Your task to perform on an android device: set the stopwatch Image 0: 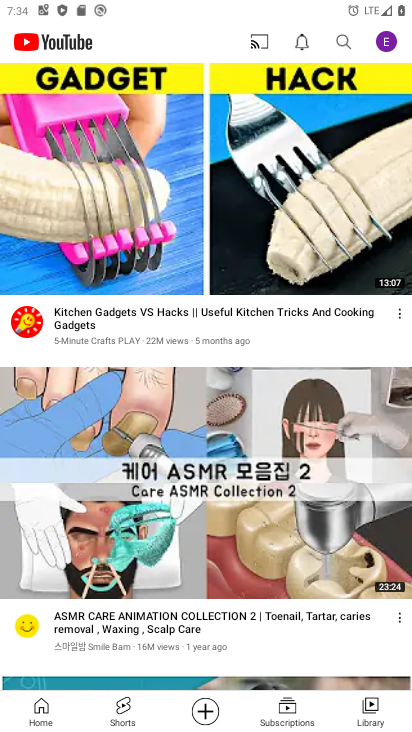
Step 0: press home button
Your task to perform on an android device: set the stopwatch Image 1: 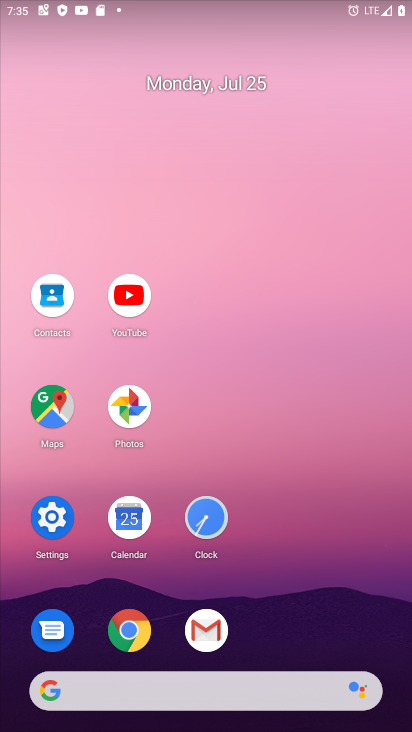
Step 1: click (198, 523)
Your task to perform on an android device: set the stopwatch Image 2: 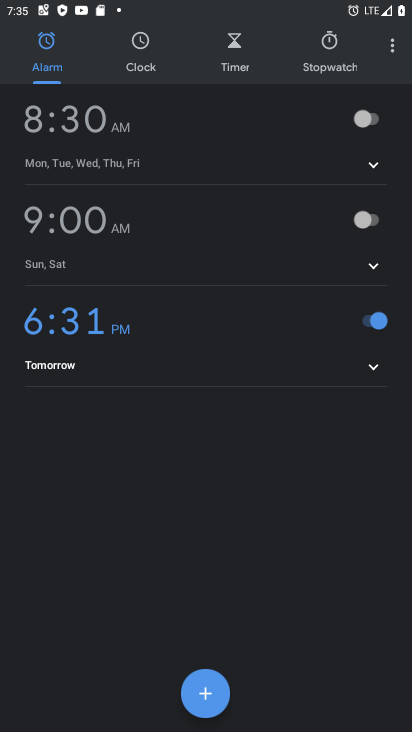
Step 2: click (328, 44)
Your task to perform on an android device: set the stopwatch Image 3: 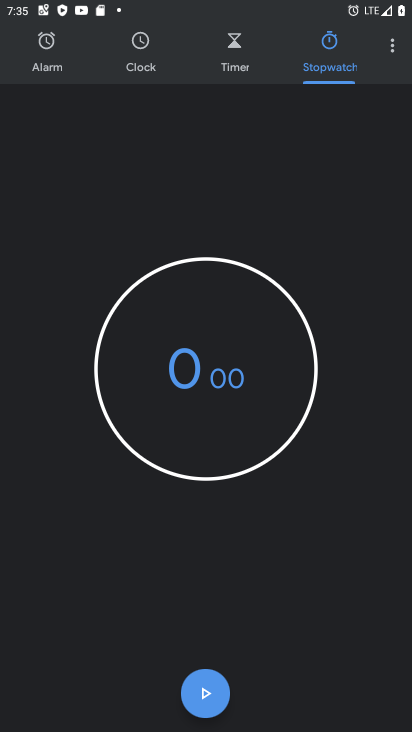
Step 3: task complete